Your task to perform on an android device: What is the news today? Image 0: 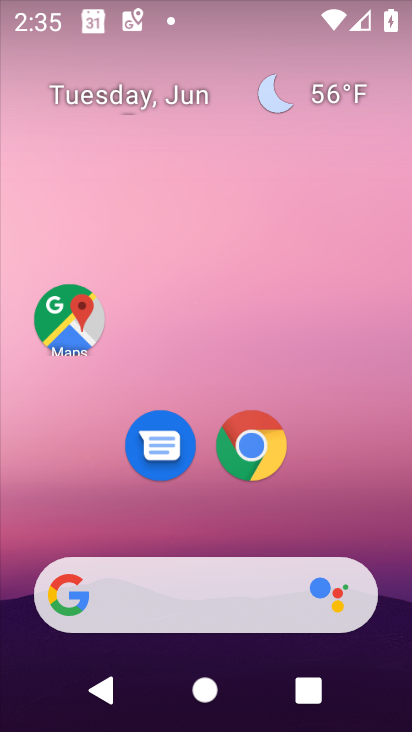
Step 0: click (251, 604)
Your task to perform on an android device: What is the news today? Image 1: 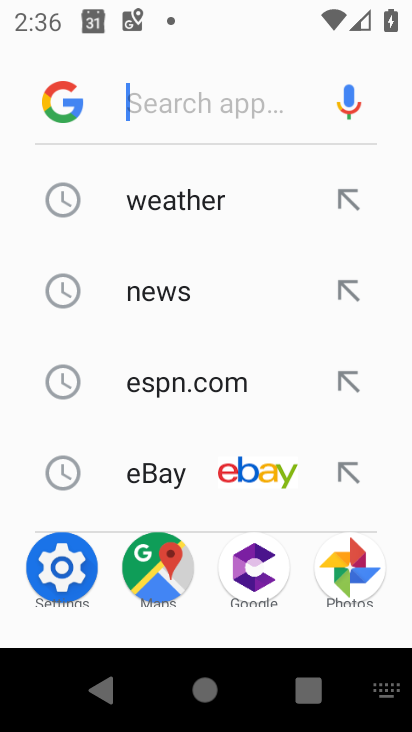
Step 1: type "news today"
Your task to perform on an android device: What is the news today? Image 2: 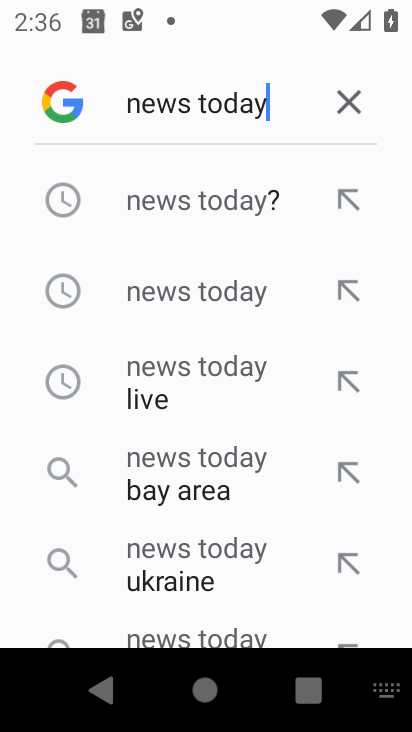
Step 2: click (262, 207)
Your task to perform on an android device: What is the news today? Image 3: 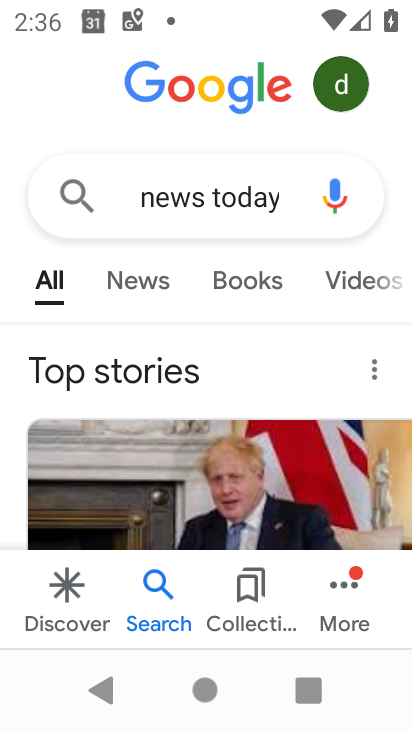
Step 3: task complete